Your task to perform on an android device: toggle location history Image 0: 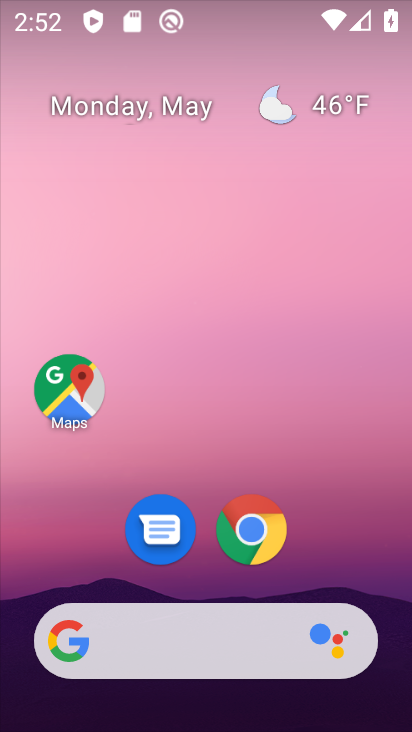
Step 0: drag from (401, 554) to (350, 190)
Your task to perform on an android device: toggle location history Image 1: 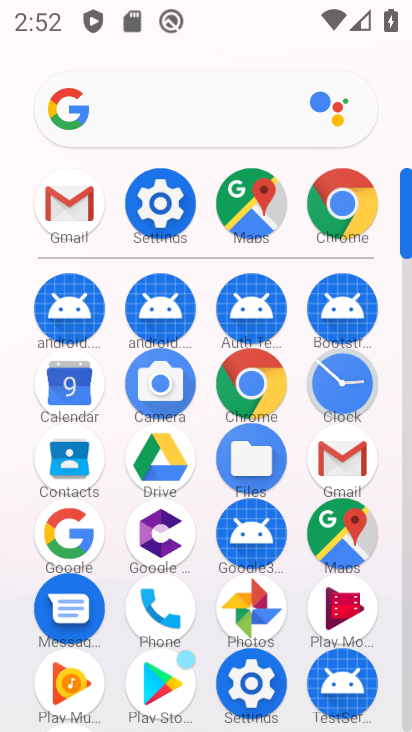
Step 1: click (339, 534)
Your task to perform on an android device: toggle location history Image 2: 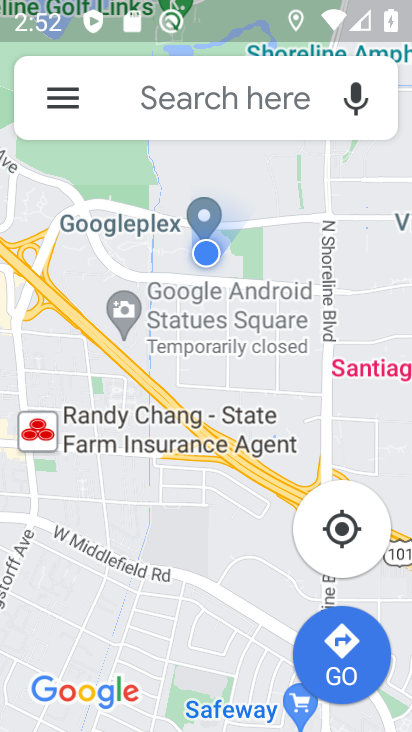
Step 2: click (46, 112)
Your task to perform on an android device: toggle location history Image 3: 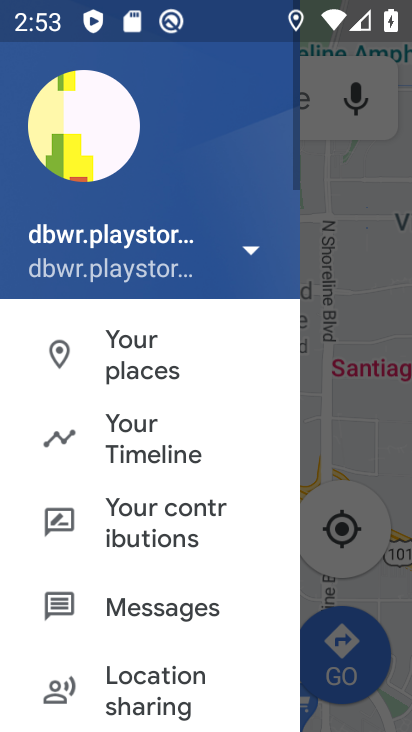
Step 3: click (108, 428)
Your task to perform on an android device: toggle location history Image 4: 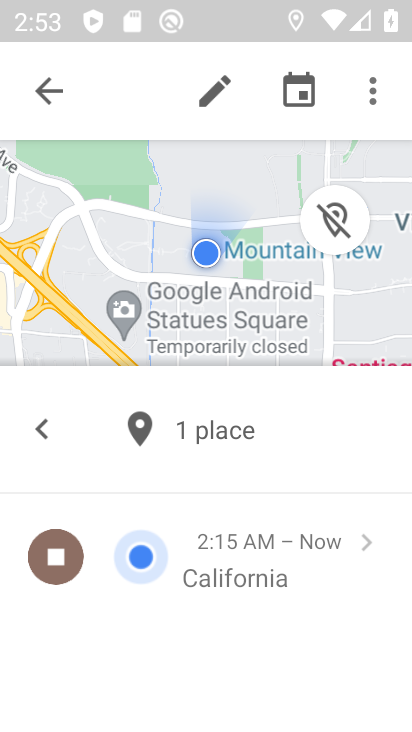
Step 4: click (374, 79)
Your task to perform on an android device: toggle location history Image 5: 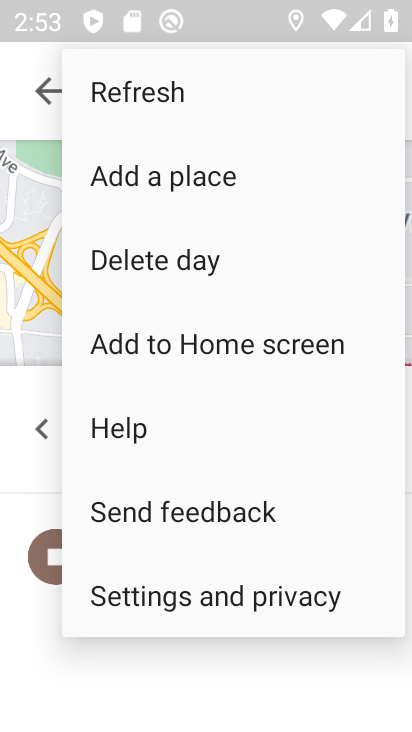
Step 5: click (198, 584)
Your task to perform on an android device: toggle location history Image 6: 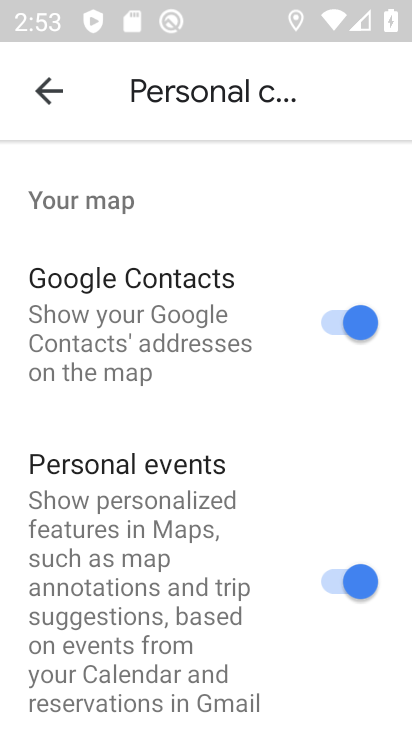
Step 6: drag from (122, 611) to (154, 228)
Your task to perform on an android device: toggle location history Image 7: 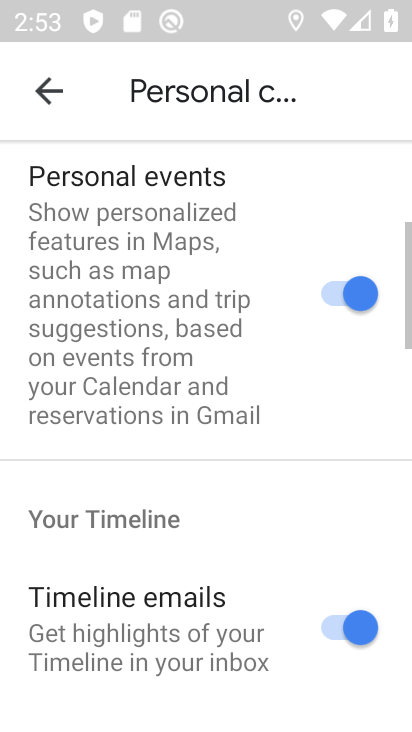
Step 7: drag from (126, 639) to (145, 226)
Your task to perform on an android device: toggle location history Image 8: 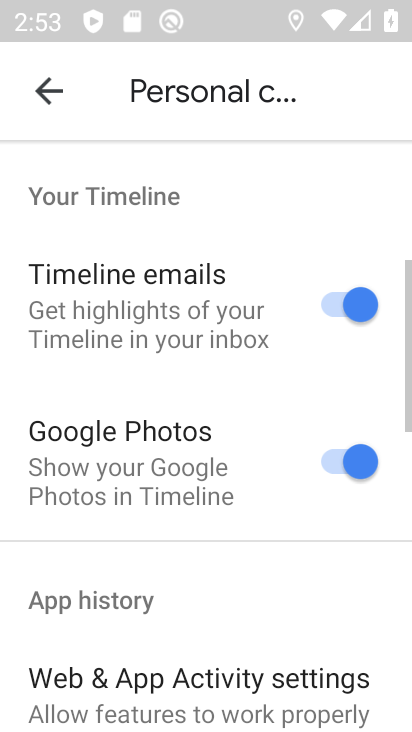
Step 8: drag from (129, 599) to (155, 297)
Your task to perform on an android device: toggle location history Image 9: 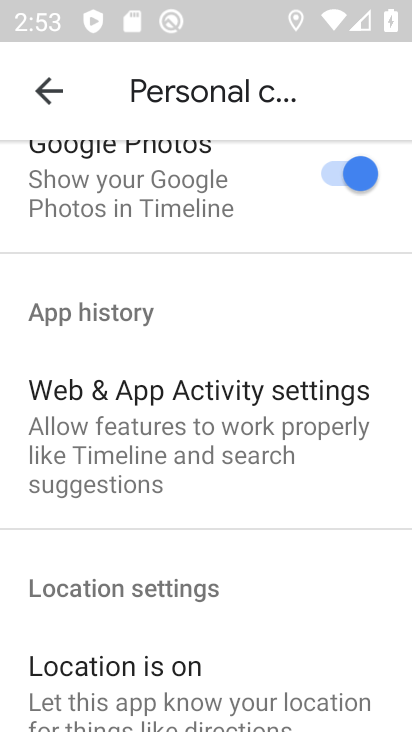
Step 9: drag from (208, 541) to (221, 234)
Your task to perform on an android device: toggle location history Image 10: 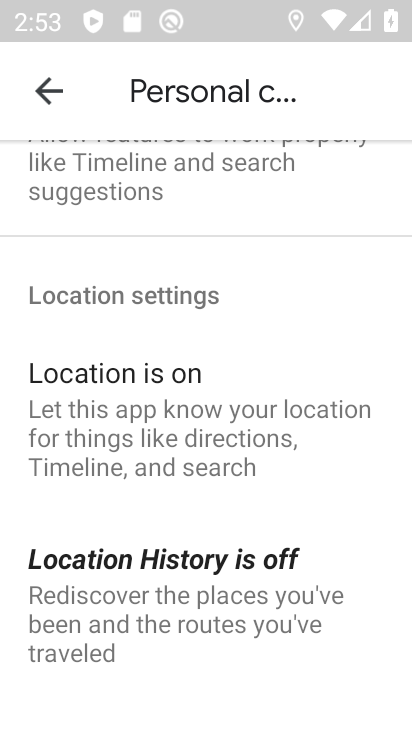
Step 10: click (144, 432)
Your task to perform on an android device: toggle location history Image 11: 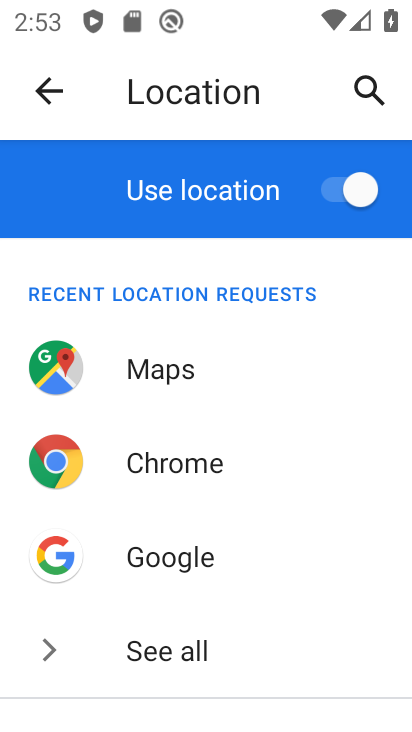
Step 11: drag from (241, 636) to (216, 265)
Your task to perform on an android device: toggle location history Image 12: 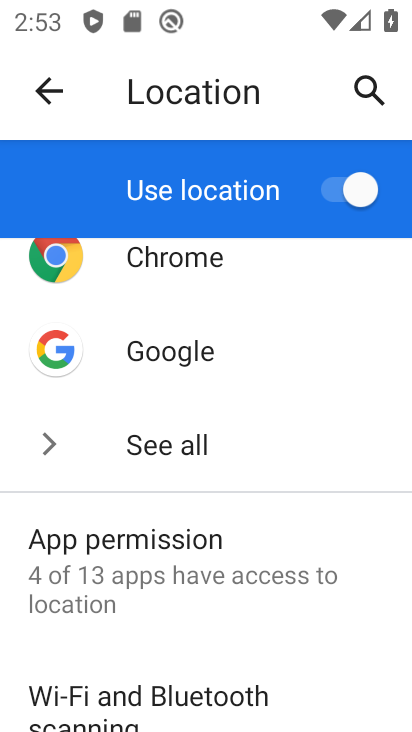
Step 12: drag from (242, 636) to (247, 331)
Your task to perform on an android device: toggle location history Image 13: 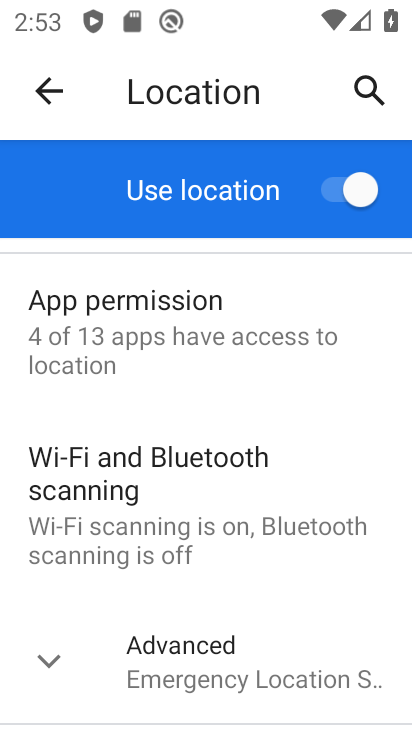
Step 13: click (187, 658)
Your task to perform on an android device: toggle location history Image 14: 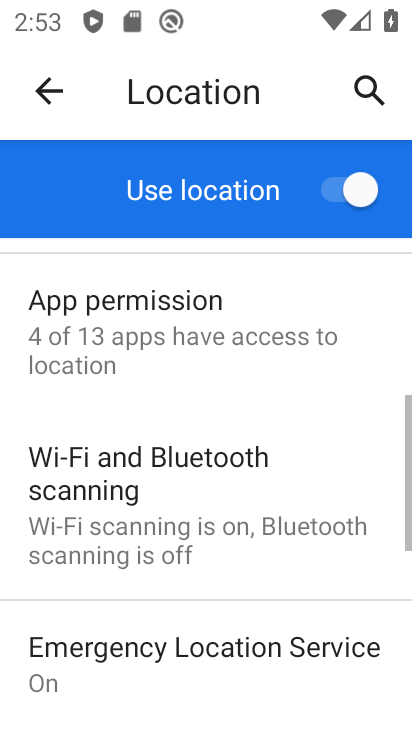
Step 14: drag from (220, 680) to (229, 417)
Your task to perform on an android device: toggle location history Image 15: 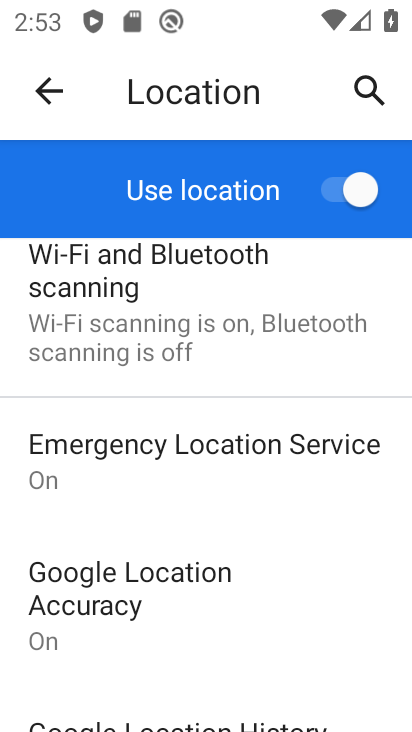
Step 15: drag from (247, 661) to (247, 412)
Your task to perform on an android device: toggle location history Image 16: 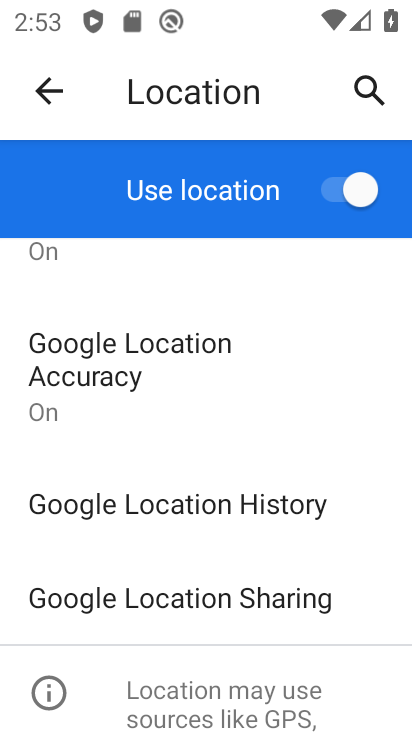
Step 16: click (188, 508)
Your task to perform on an android device: toggle location history Image 17: 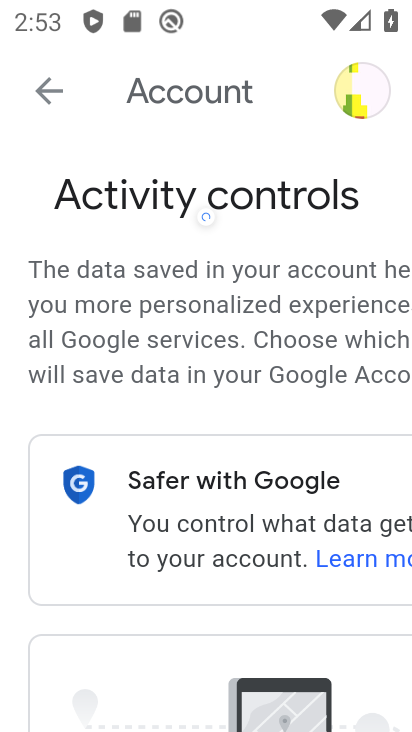
Step 17: drag from (153, 635) to (172, 358)
Your task to perform on an android device: toggle location history Image 18: 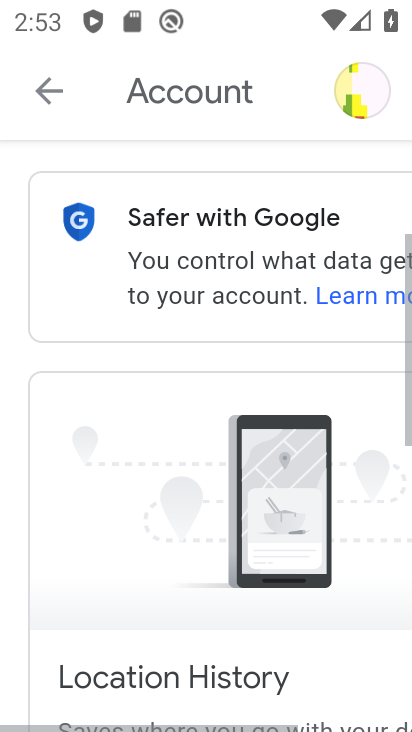
Step 18: drag from (176, 630) to (174, 252)
Your task to perform on an android device: toggle location history Image 19: 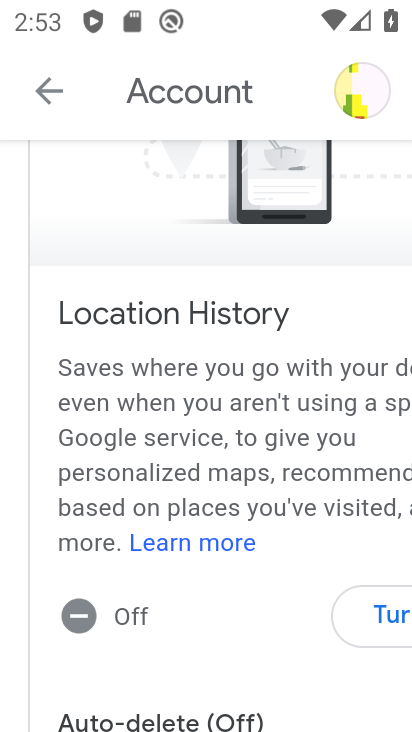
Step 19: drag from (193, 570) to (201, 396)
Your task to perform on an android device: toggle location history Image 20: 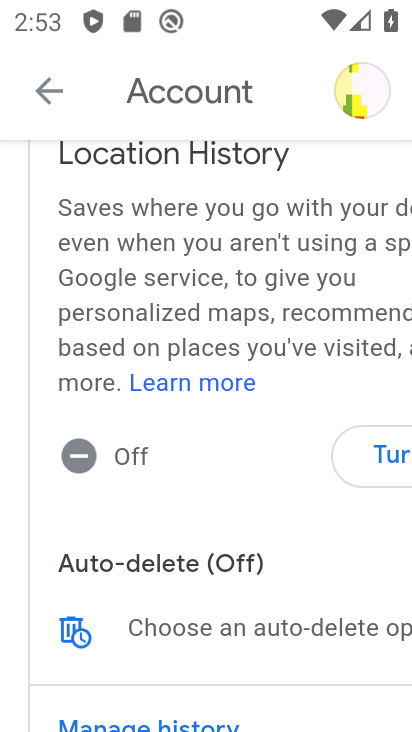
Step 20: click (366, 460)
Your task to perform on an android device: toggle location history Image 21: 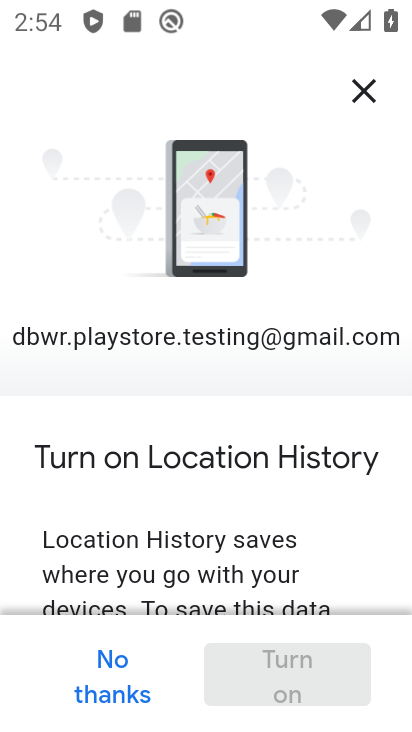
Step 21: drag from (151, 648) to (217, 328)
Your task to perform on an android device: toggle location history Image 22: 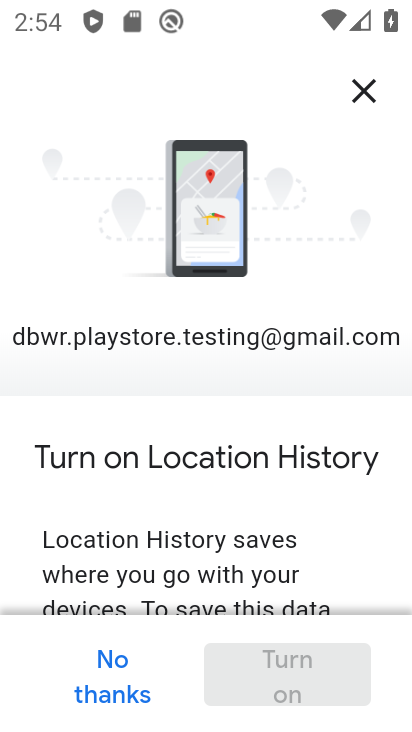
Step 22: drag from (220, 517) to (217, 218)
Your task to perform on an android device: toggle location history Image 23: 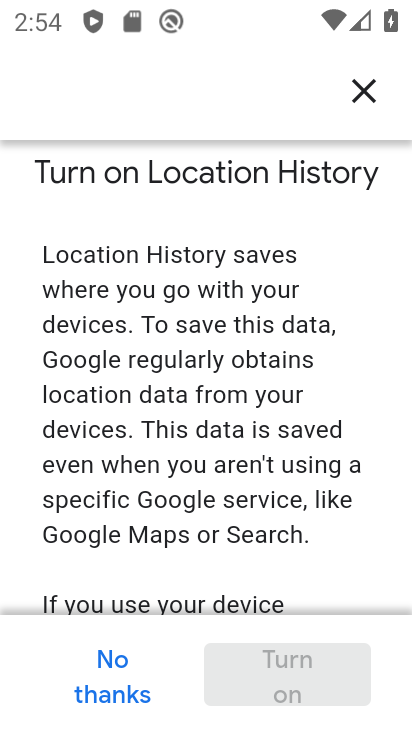
Step 23: drag from (282, 623) to (271, 256)
Your task to perform on an android device: toggle location history Image 24: 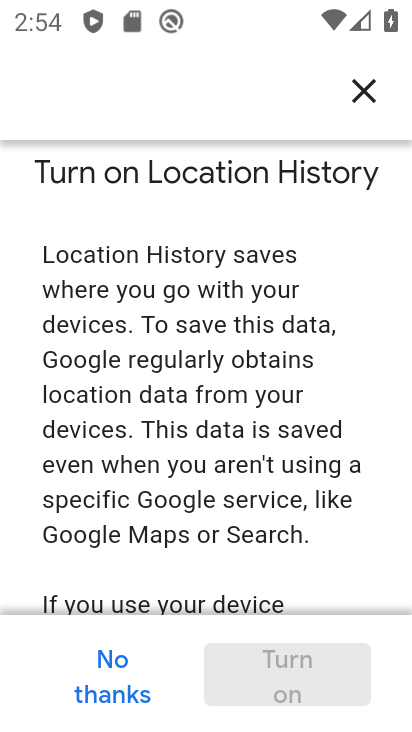
Step 24: drag from (335, 579) to (264, 247)
Your task to perform on an android device: toggle location history Image 25: 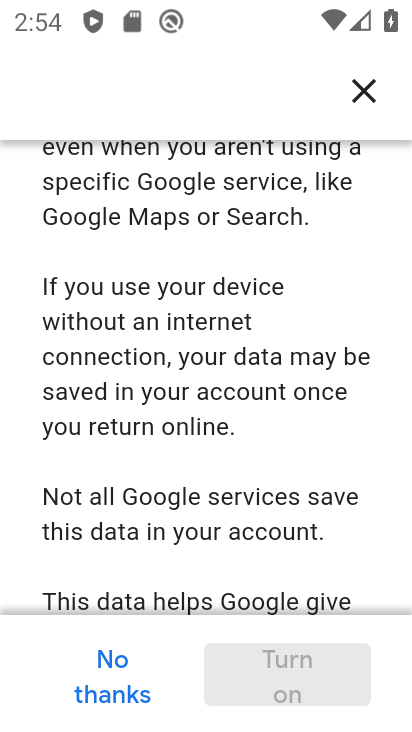
Step 25: drag from (318, 527) to (221, 78)
Your task to perform on an android device: toggle location history Image 26: 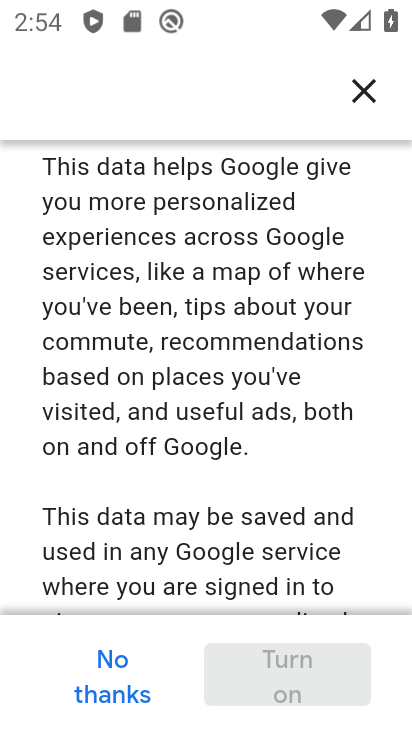
Step 26: drag from (346, 505) to (215, 119)
Your task to perform on an android device: toggle location history Image 27: 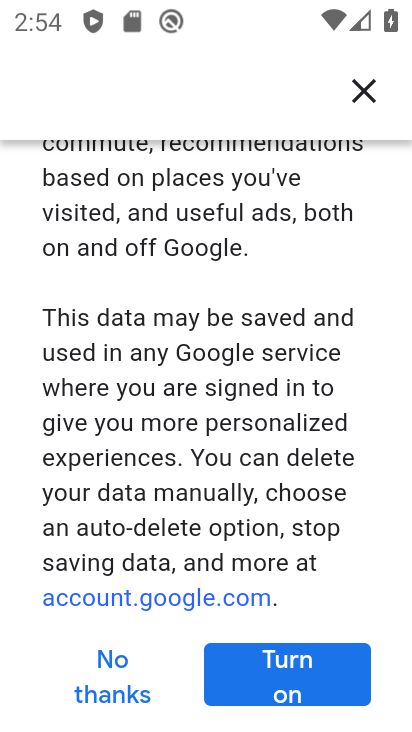
Step 27: click (312, 678)
Your task to perform on an android device: toggle location history Image 28: 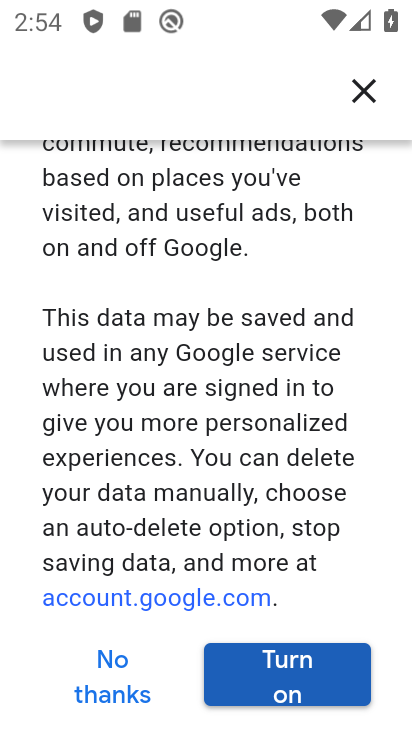
Step 28: click (303, 682)
Your task to perform on an android device: toggle location history Image 29: 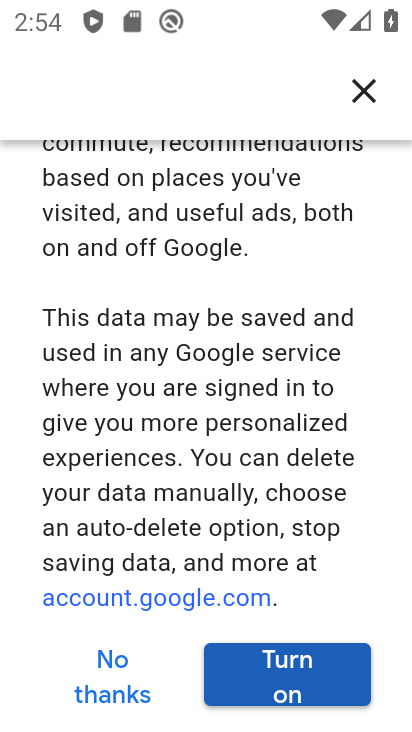
Step 29: click (303, 682)
Your task to perform on an android device: toggle location history Image 30: 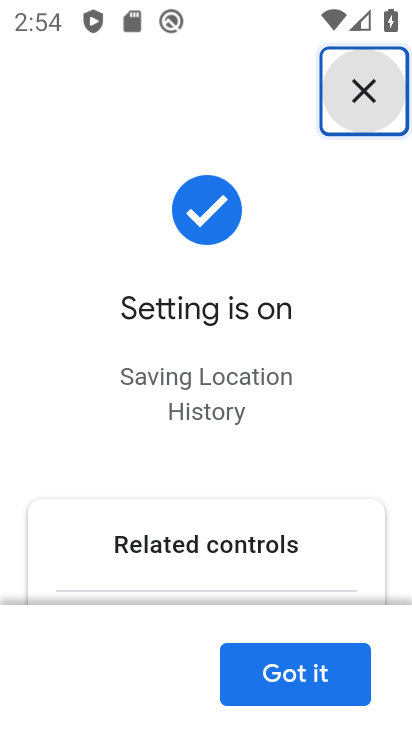
Step 30: task complete